Your task to perform on an android device: Search for pizza restaurants on Maps Image 0: 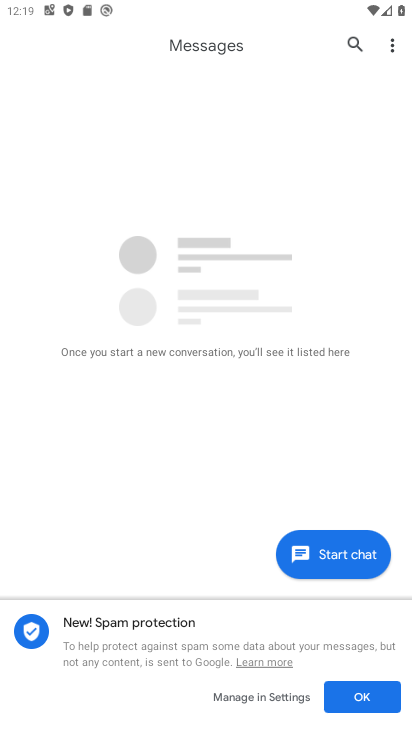
Step 0: press home button
Your task to perform on an android device: Search for pizza restaurants on Maps Image 1: 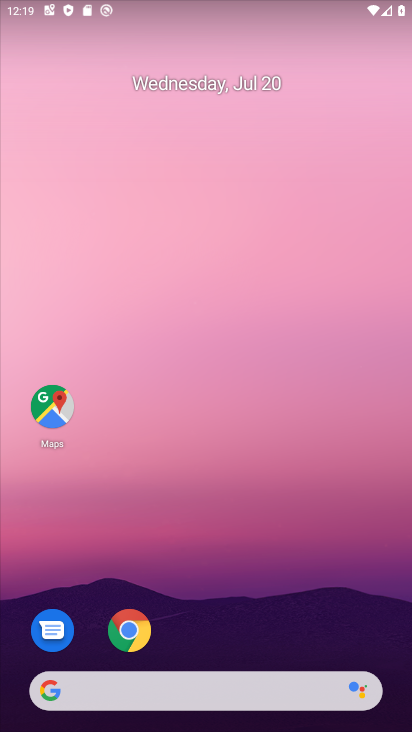
Step 1: click (54, 393)
Your task to perform on an android device: Search for pizza restaurants on Maps Image 2: 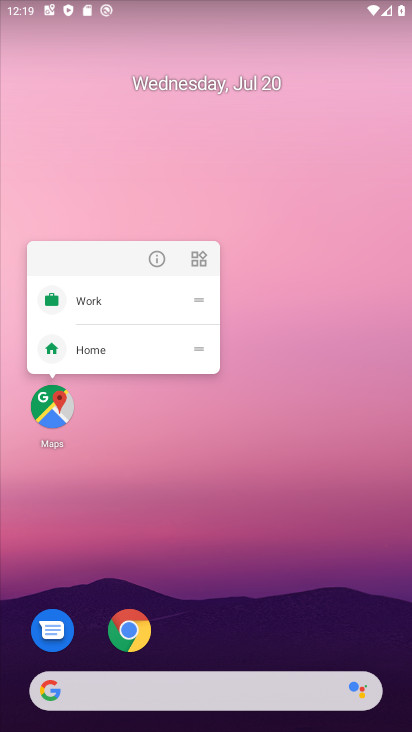
Step 2: click (58, 405)
Your task to perform on an android device: Search for pizza restaurants on Maps Image 3: 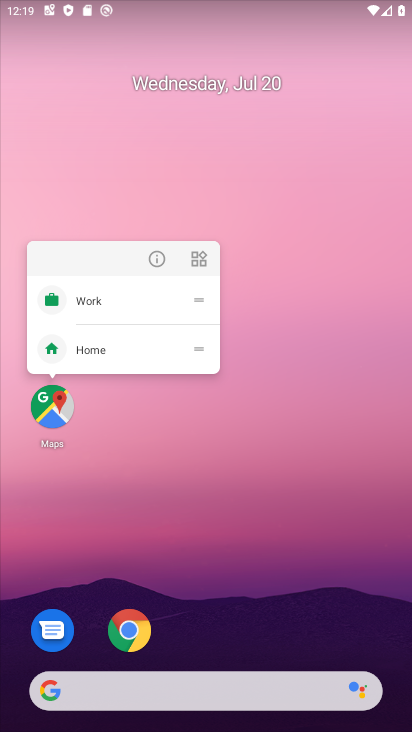
Step 3: click (57, 411)
Your task to perform on an android device: Search for pizza restaurants on Maps Image 4: 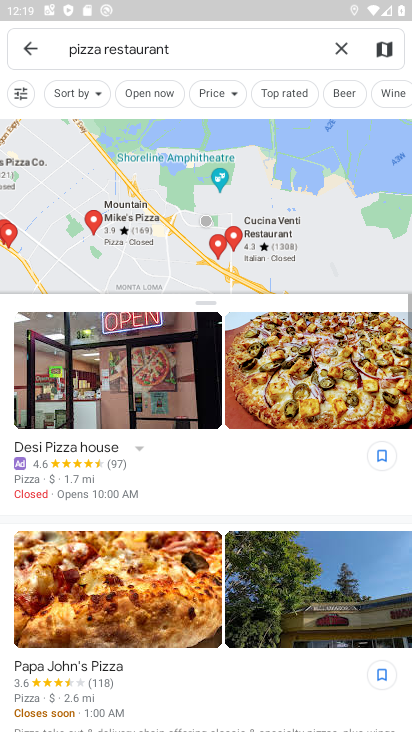
Step 4: click (341, 47)
Your task to perform on an android device: Search for pizza restaurants on Maps Image 5: 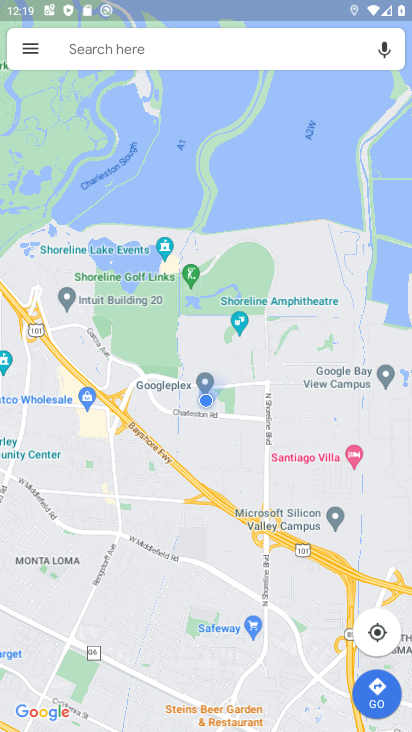
Step 5: type "pizza restaurants"
Your task to perform on an android device: Search for pizza restaurants on Maps Image 6: 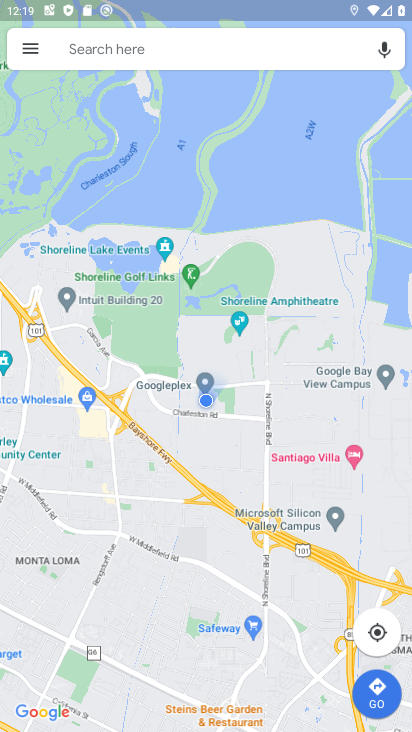
Step 6: click (132, 48)
Your task to perform on an android device: Search for pizza restaurants on Maps Image 7: 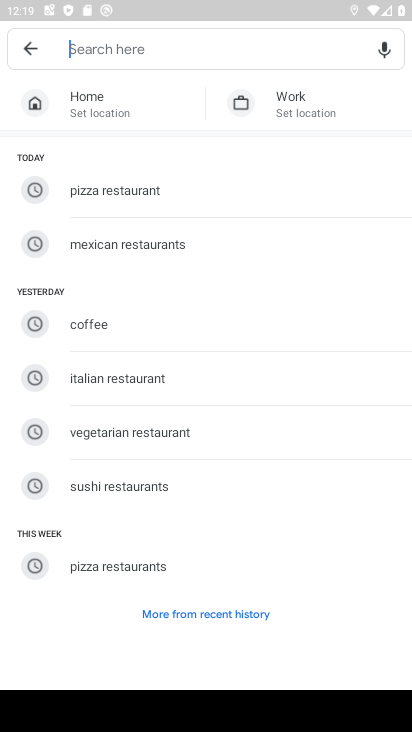
Step 7: click (115, 186)
Your task to perform on an android device: Search for pizza restaurants on Maps Image 8: 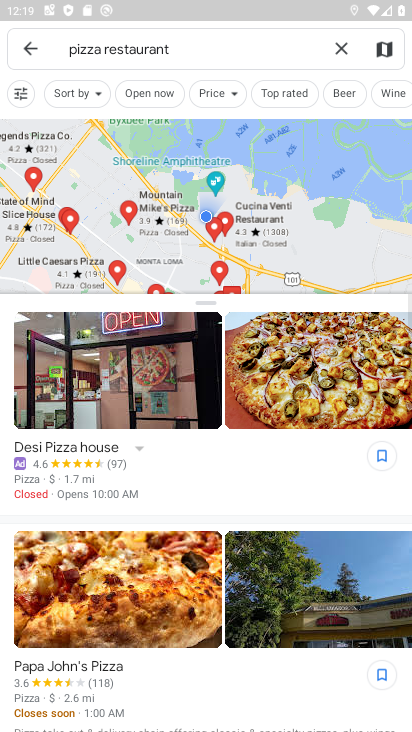
Step 8: task complete